Your task to perform on an android device: open wifi settings Image 0: 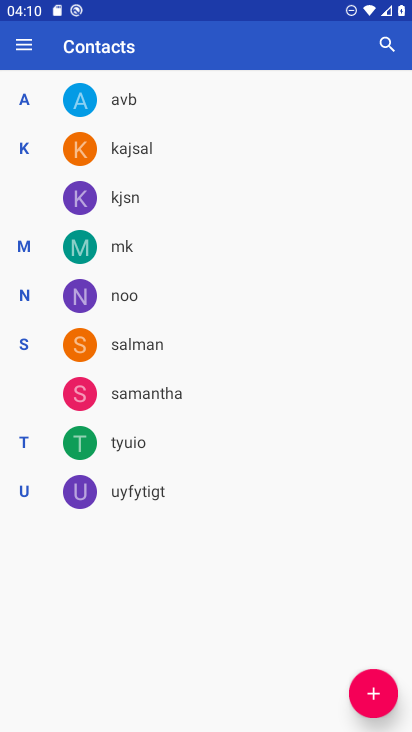
Step 0: press home button
Your task to perform on an android device: open wifi settings Image 1: 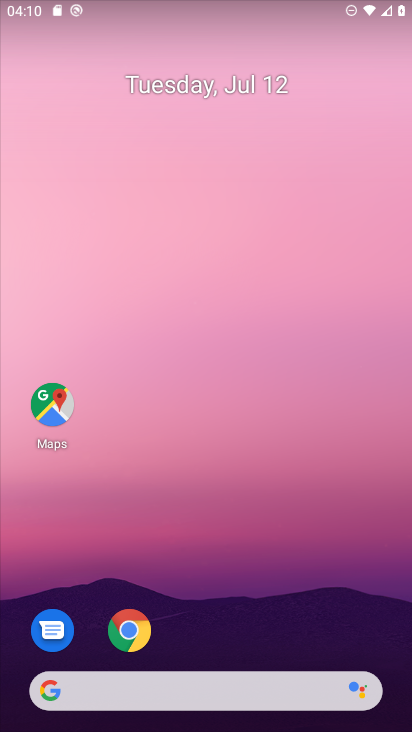
Step 1: drag from (349, 621) to (306, 69)
Your task to perform on an android device: open wifi settings Image 2: 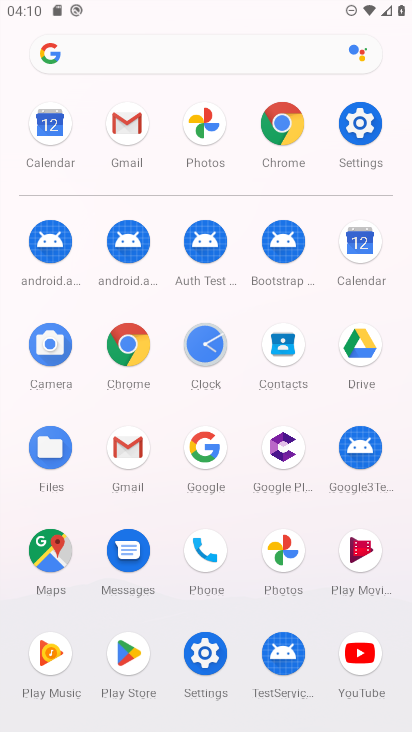
Step 2: click (203, 653)
Your task to perform on an android device: open wifi settings Image 3: 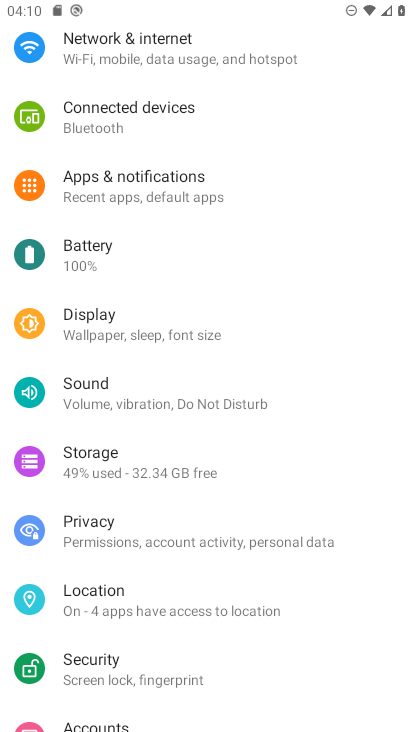
Step 3: drag from (266, 184) to (279, 363)
Your task to perform on an android device: open wifi settings Image 4: 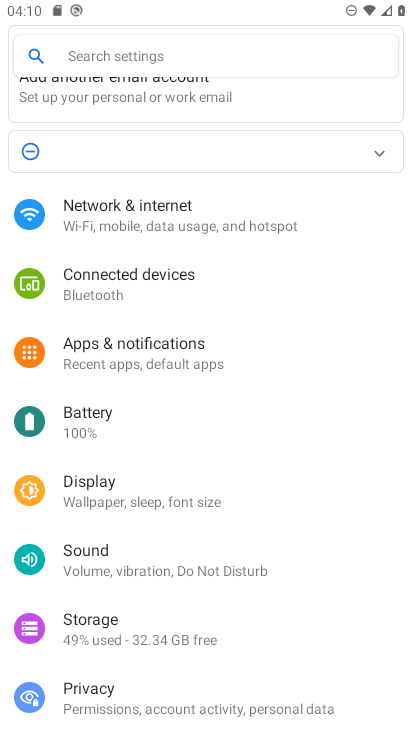
Step 4: click (101, 206)
Your task to perform on an android device: open wifi settings Image 5: 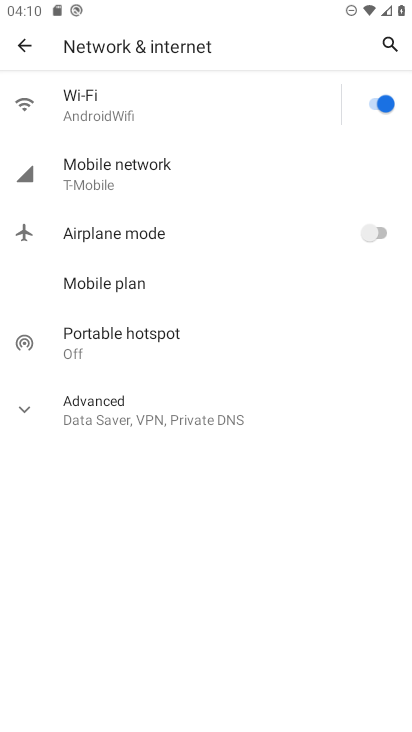
Step 5: click (79, 98)
Your task to perform on an android device: open wifi settings Image 6: 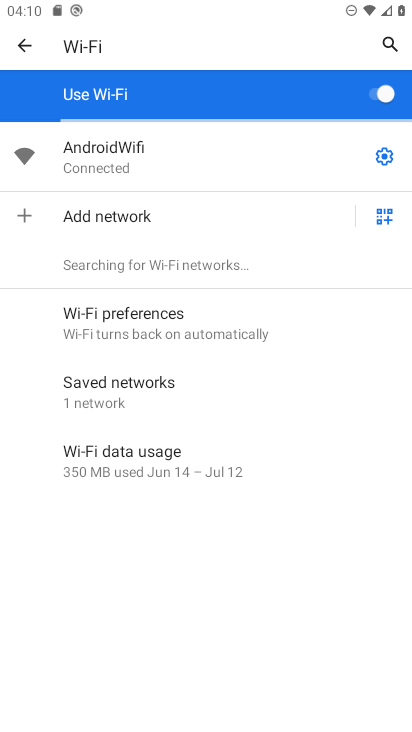
Step 6: task complete